Your task to perform on an android device: find photos in the google photos app Image 0: 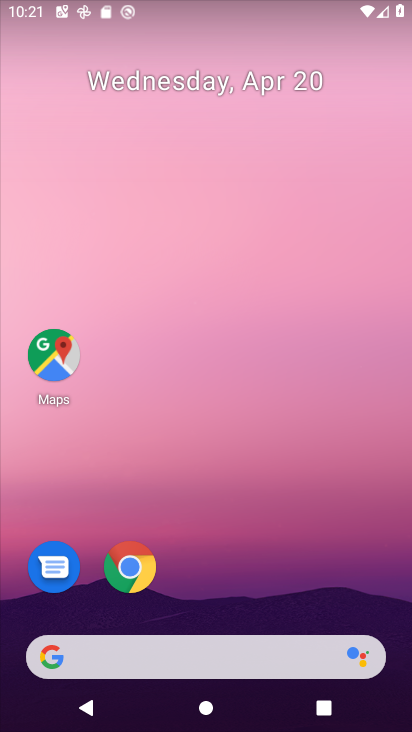
Step 0: drag from (311, 576) to (307, 108)
Your task to perform on an android device: find photos in the google photos app Image 1: 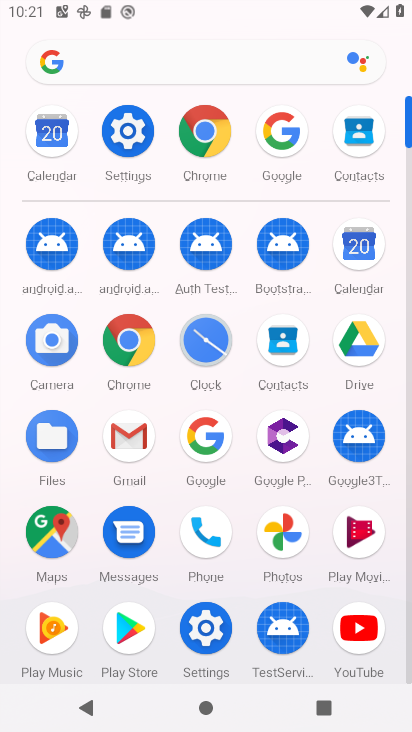
Step 1: click (278, 540)
Your task to perform on an android device: find photos in the google photos app Image 2: 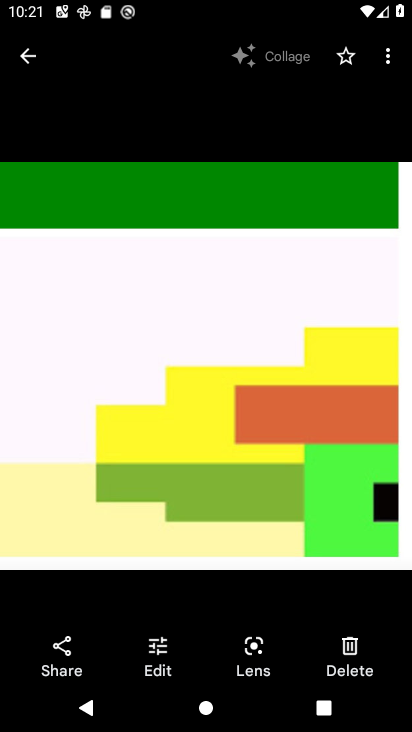
Step 2: task complete